Your task to perform on an android device: all mails in gmail Image 0: 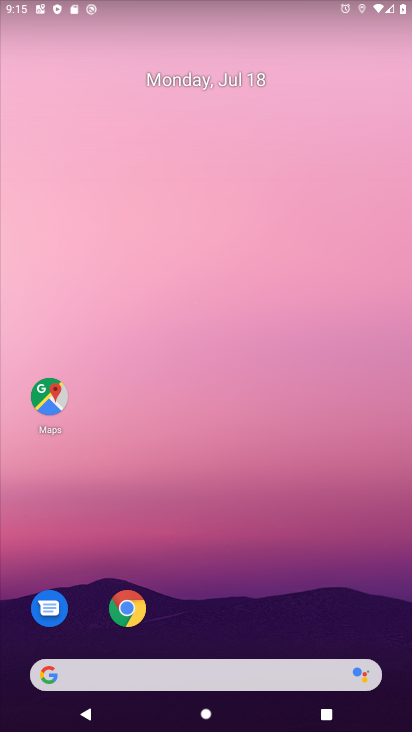
Step 0: drag from (32, 703) to (203, 147)
Your task to perform on an android device: all mails in gmail Image 1: 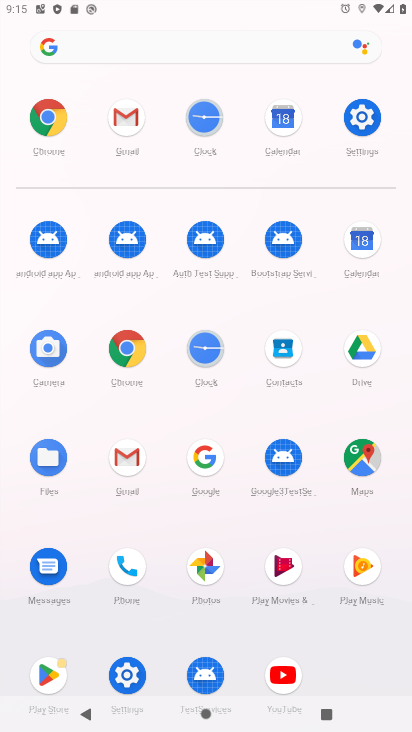
Step 1: click (116, 453)
Your task to perform on an android device: all mails in gmail Image 2: 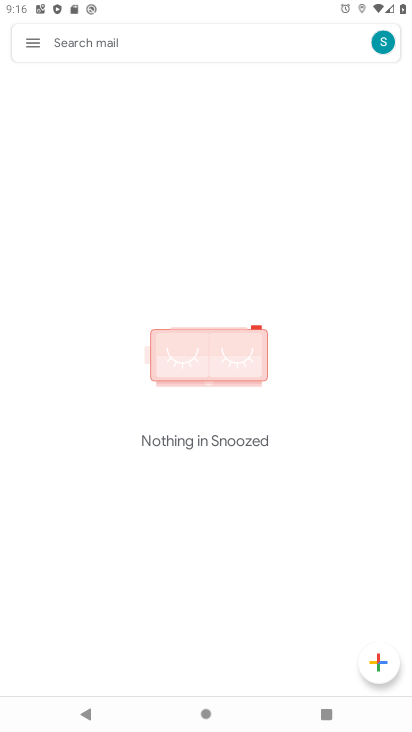
Step 2: click (27, 43)
Your task to perform on an android device: all mails in gmail Image 3: 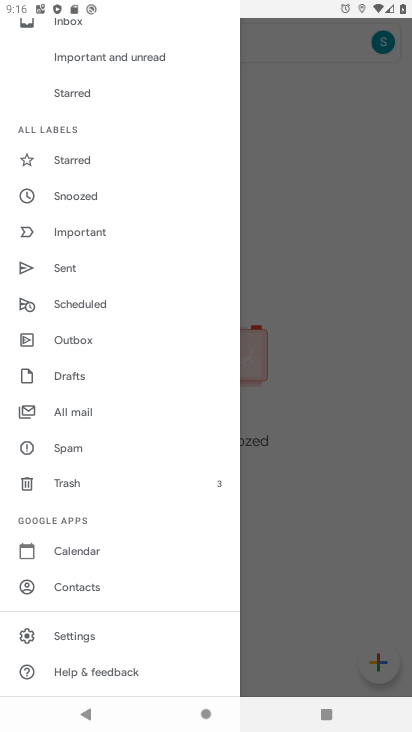
Step 3: drag from (147, 117) to (47, 731)
Your task to perform on an android device: all mails in gmail Image 4: 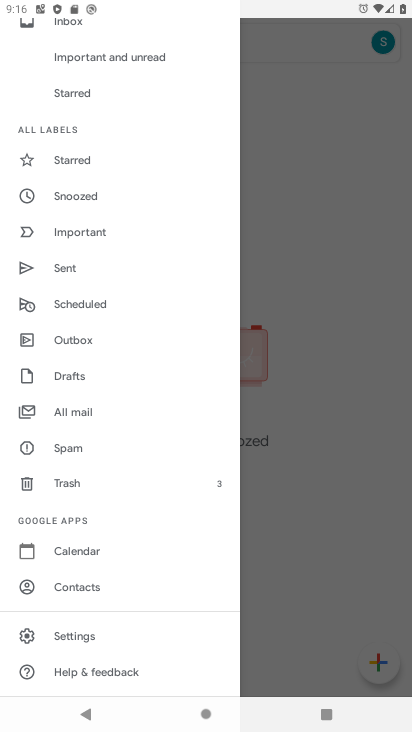
Step 4: drag from (132, 43) to (150, 471)
Your task to perform on an android device: all mails in gmail Image 5: 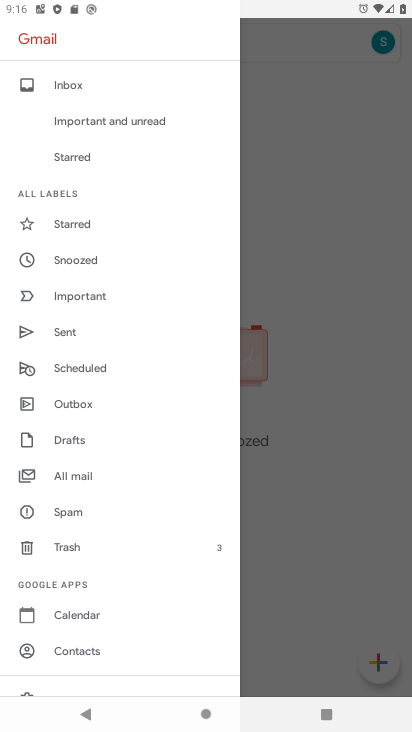
Step 5: click (71, 86)
Your task to perform on an android device: all mails in gmail Image 6: 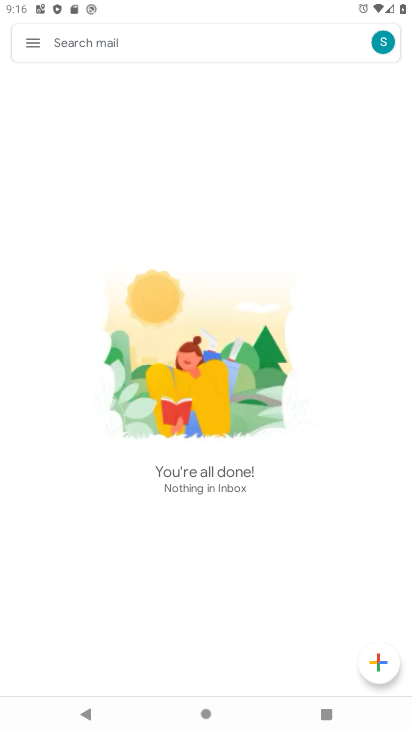
Step 6: click (30, 48)
Your task to perform on an android device: all mails in gmail Image 7: 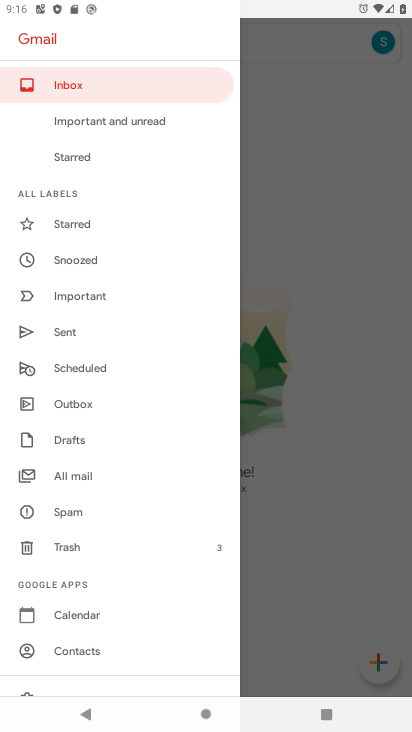
Step 7: click (84, 479)
Your task to perform on an android device: all mails in gmail Image 8: 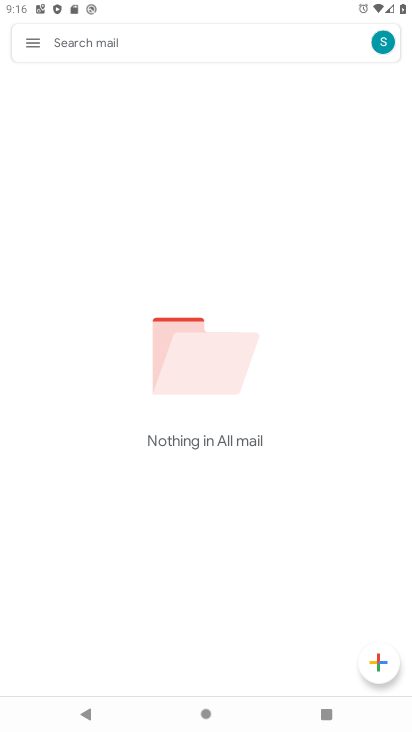
Step 8: task complete